Your task to perform on an android device: make emails show in primary in the gmail app Image 0: 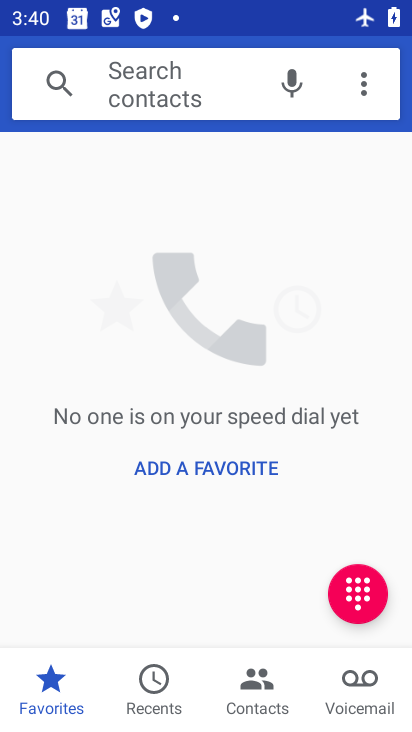
Step 0: press back button
Your task to perform on an android device: make emails show in primary in the gmail app Image 1: 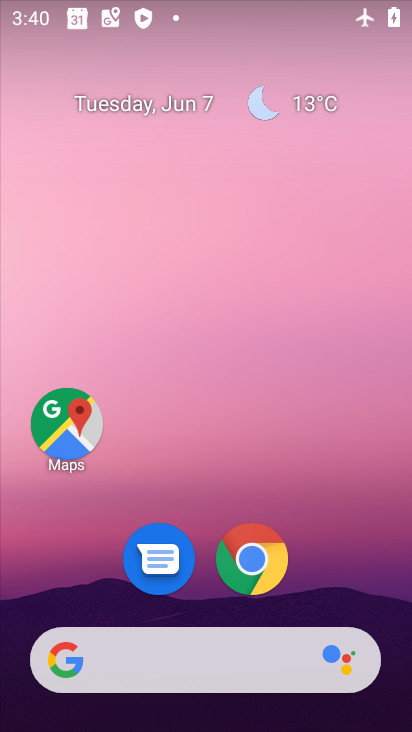
Step 1: drag from (352, 571) to (265, 88)
Your task to perform on an android device: make emails show in primary in the gmail app Image 2: 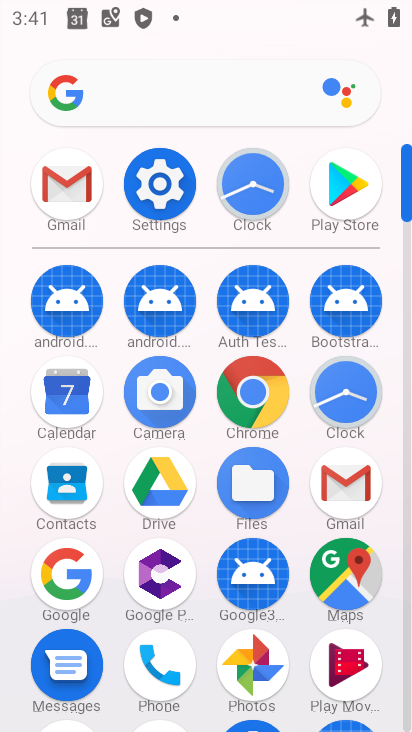
Step 2: click (69, 182)
Your task to perform on an android device: make emails show in primary in the gmail app Image 3: 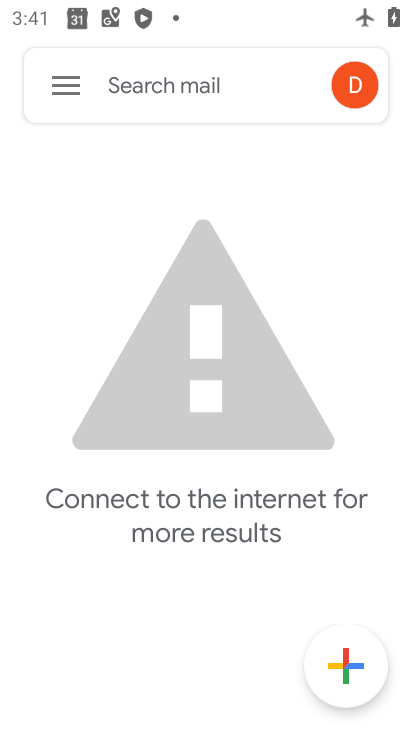
Step 3: click (57, 81)
Your task to perform on an android device: make emails show in primary in the gmail app Image 4: 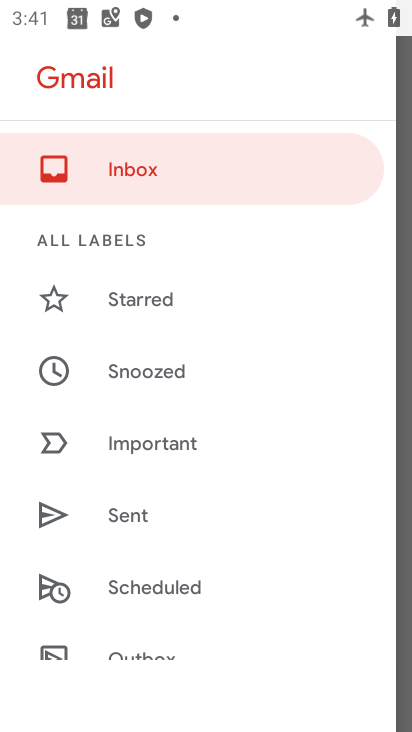
Step 4: task complete